Your task to perform on an android device: toggle notification dots Image 0: 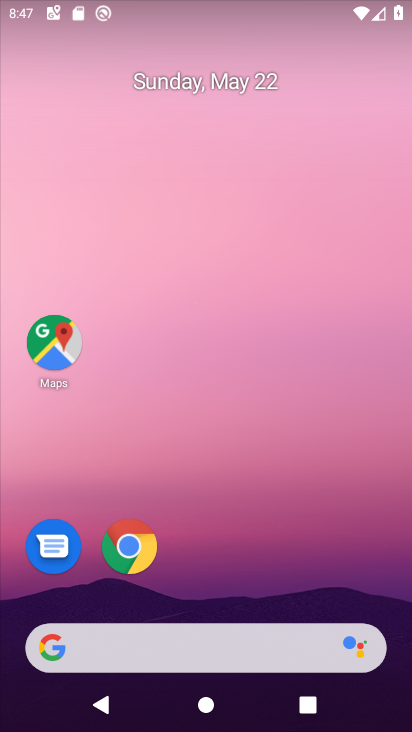
Step 0: drag from (347, 592) to (354, 199)
Your task to perform on an android device: toggle notification dots Image 1: 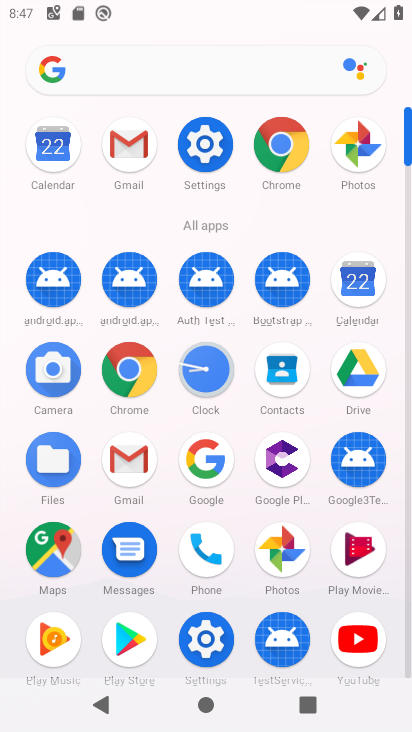
Step 1: click (204, 154)
Your task to perform on an android device: toggle notification dots Image 2: 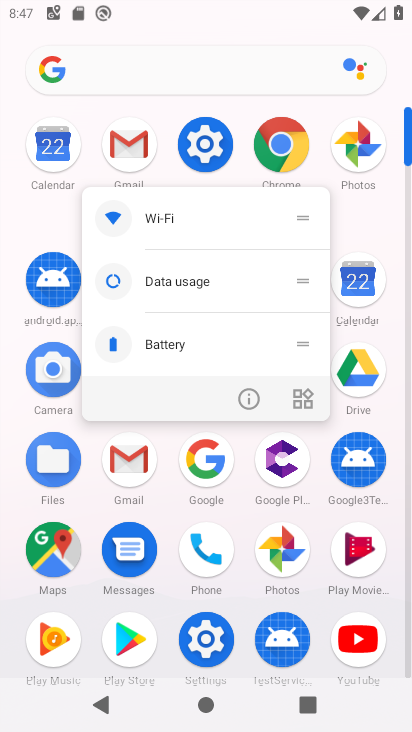
Step 2: click (204, 154)
Your task to perform on an android device: toggle notification dots Image 3: 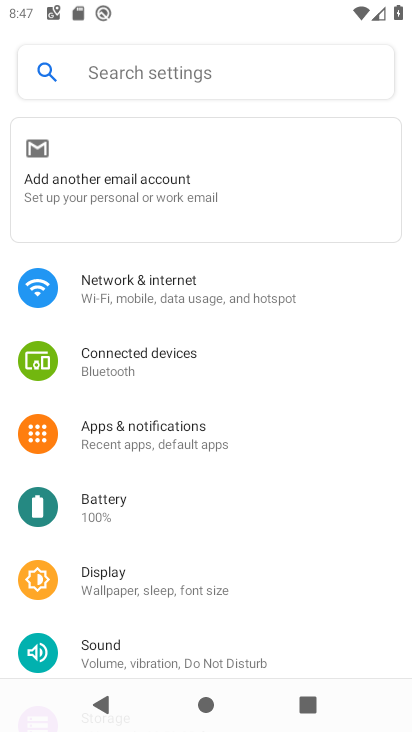
Step 3: drag from (350, 533) to (351, 432)
Your task to perform on an android device: toggle notification dots Image 4: 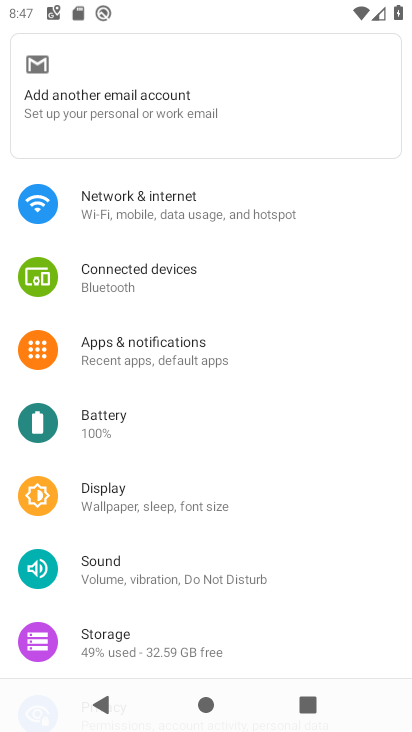
Step 4: drag from (351, 580) to (345, 504)
Your task to perform on an android device: toggle notification dots Image 5: 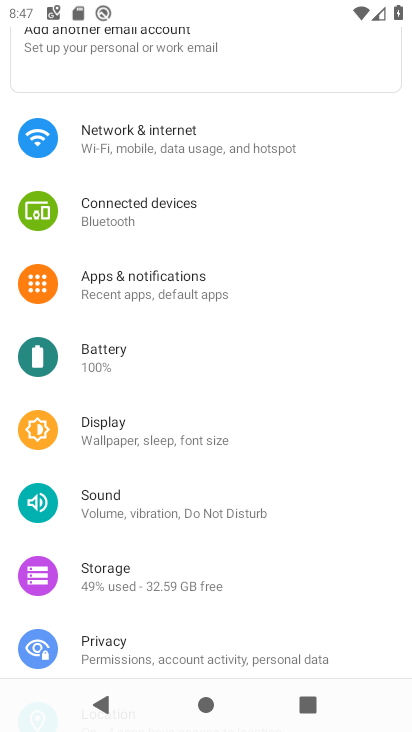
Step 5: drag from (352, 568) to (351, 501)
Your task to perform on an android device: toggle notification dots Image 6: 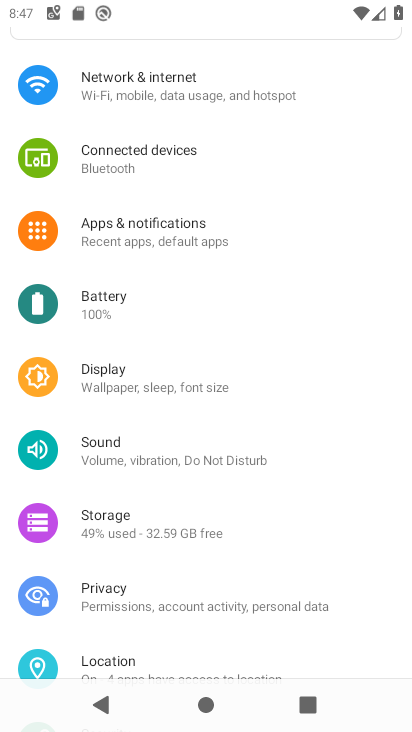
Step 6: drag from (366, 595) to (366, 492)
Your task to perform on an android device: toggle notification dots Image 7: 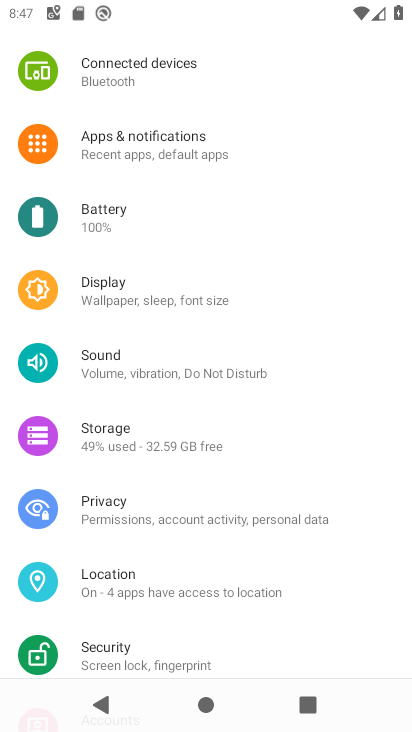
Step 7: drag from (362, 584) to (352, 503)
Your task to perform on an android device: toggle notification dots Image 8: 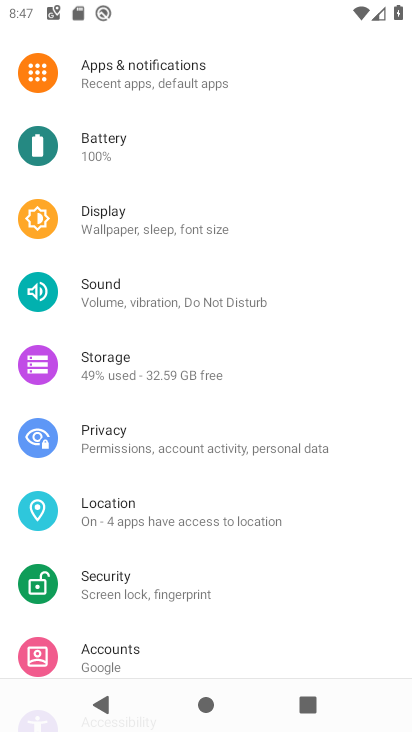
Step 8: drag from (355, 577) to (357, 500)
Your task to perform on an android device: toggle notification dots Image 9: 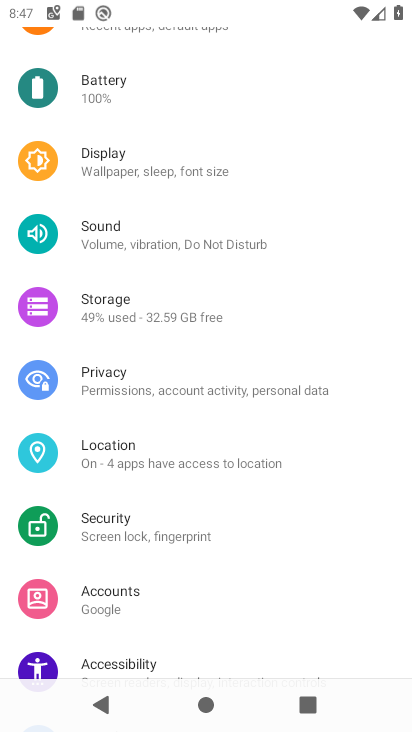
Step 9: drag from (361, 571) to (362, 511)
Your task to perform on an android device: toggle notification dots Image 10: 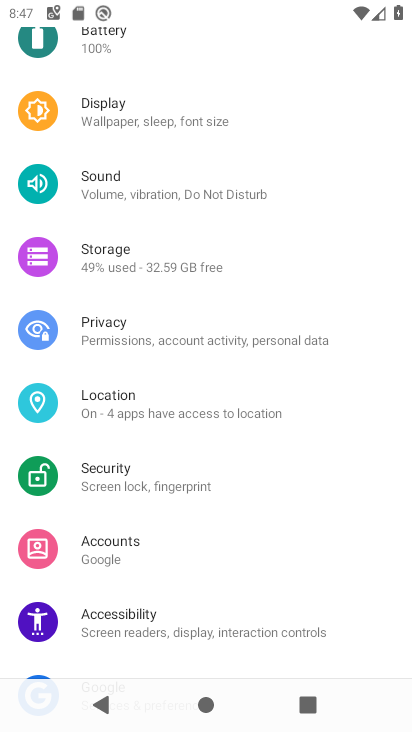
Step 10: drag from (351, 567) to (353, 500)
Your task to perform on an android device: toggle notification dots Image 11: 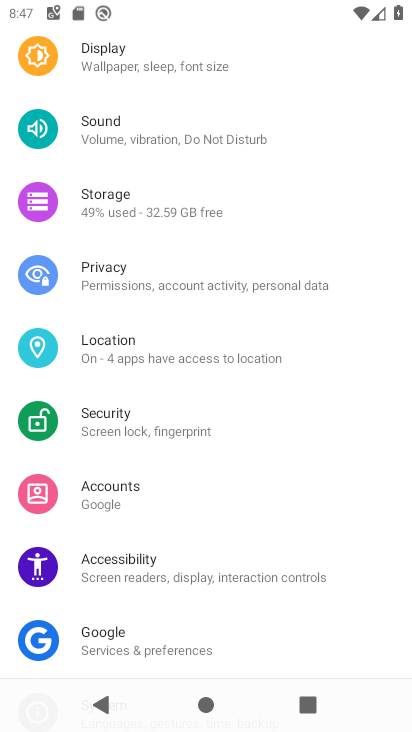
Step 11: drag from (350, 584) to (353, 423)
Your task to perform on an android device: toggle notification dots Image 12: 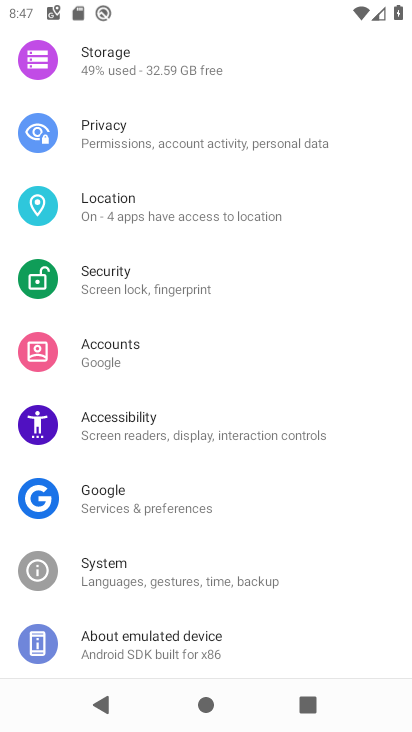
Step 12: drag from (364, 560) to (367, 444)
Your task to perform on an android device: toggle notification dots Image 13: 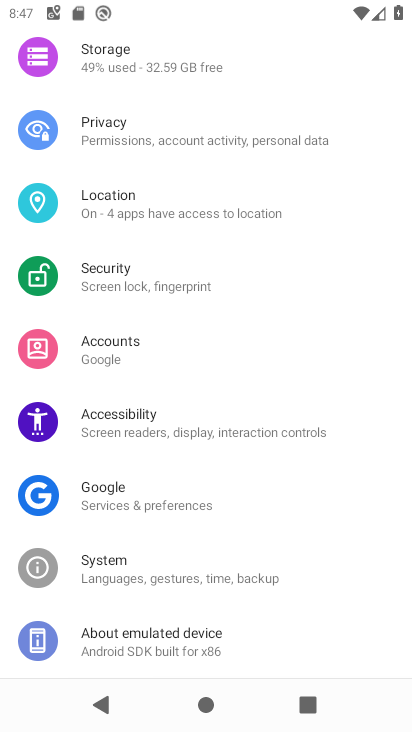
Step 13: drag from (367, 377) to (376, 467)
Your task to perform on an android device: toggle notification dots Image 14: 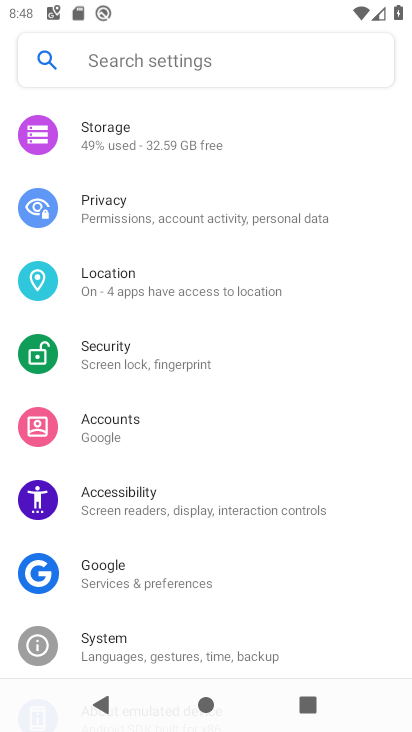
Step 14: drag from (365, 359) to (376, 421)
Your task to perform on an android device: toggle notification dots Image 15: 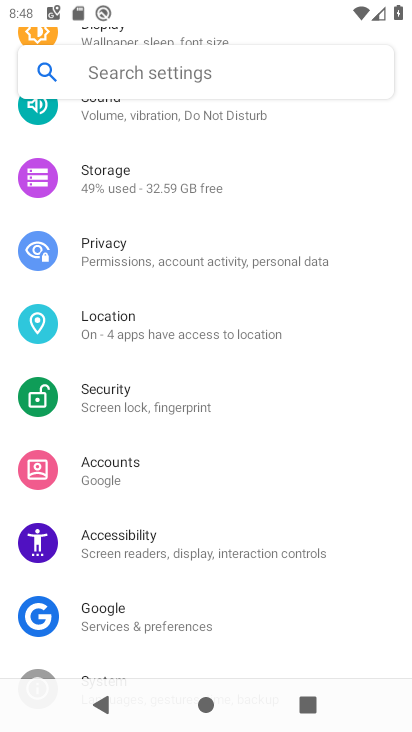
Step 15: drag from (367, 309) to (373, 450)
Your task to perform on an android device: toggle notification dots Image 16: 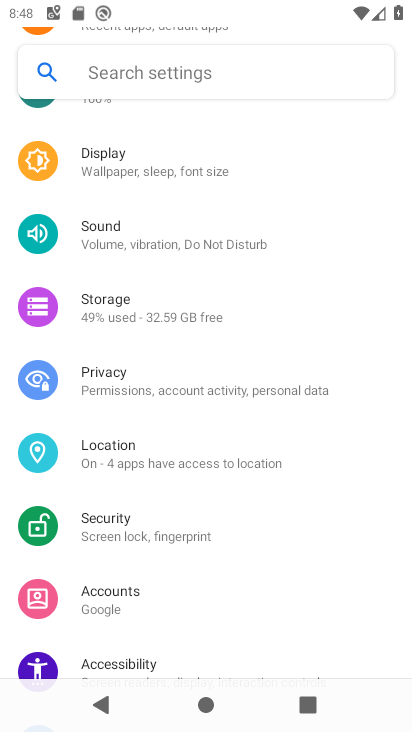
Step 16: drag from (356, 353) to (357, 461)
Your task to perform on an android device: toggle notification dots Image 17: 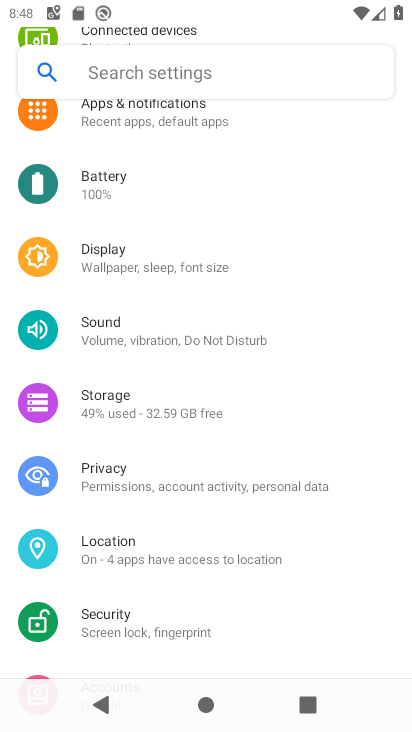
Step 17: drag from (348, 373) to (358, 447)
Your task to perform on an android device: toggle notification dots Image 18: 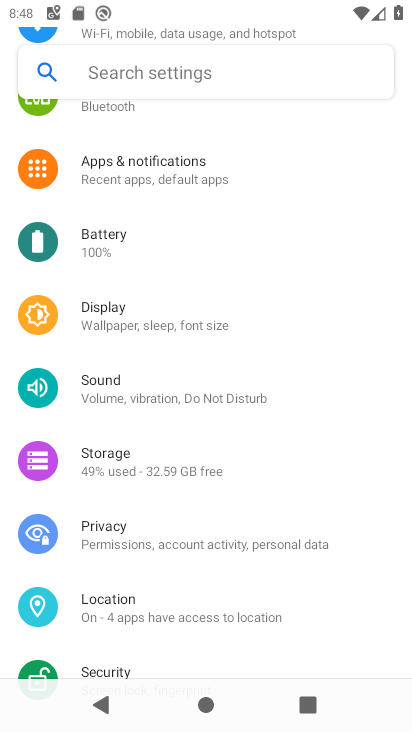
Step 18: drag from (347, 349) to (357, 472)
Your task to perform on an android device: toggle notification dots Image 19: 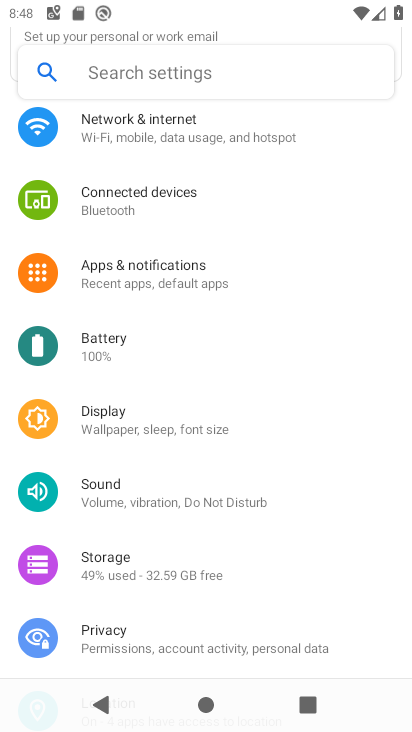
Step 19: drag from (343, 342) to (353, 421)
Your task to perform on an android device: toggle notification dots Image 20: 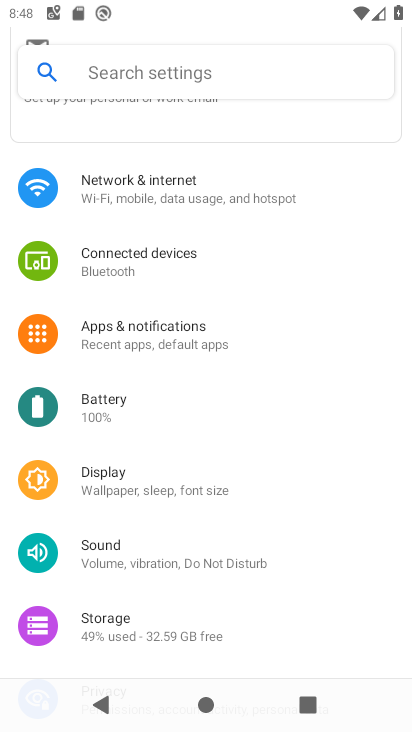
Step 20: drag from (353, 329) to (355, 416)
Your task to perform on an android device: toggle notification dots Image 21: 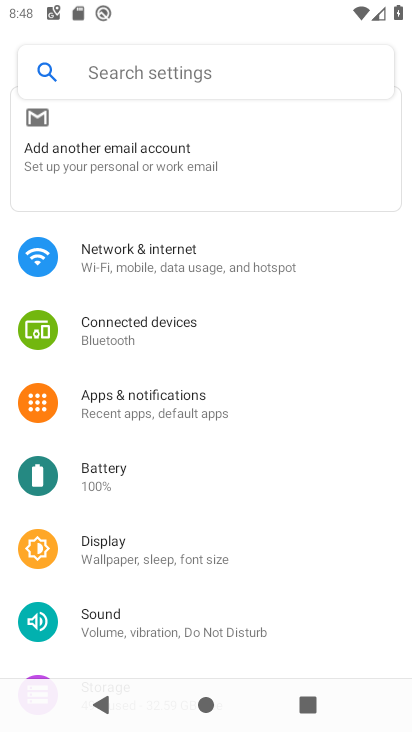
Step 21: drag from (355, 283) to (353, 411)
Your task to perform on an android device: toggle notification dots Image 22: 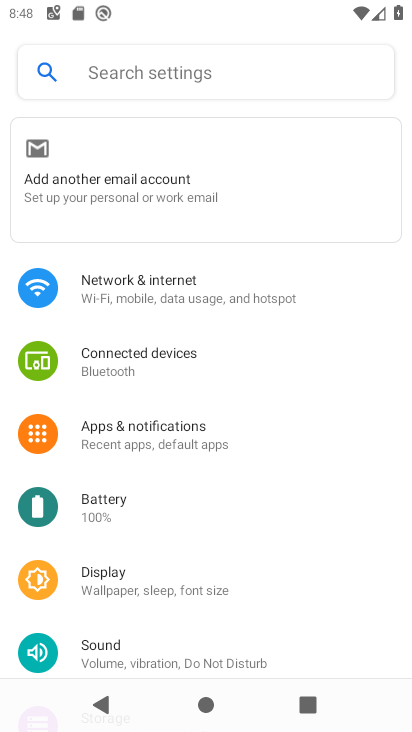
Step 22: click (239, 435)
Your task to perform on an android device: toggle notification dots Image 23: 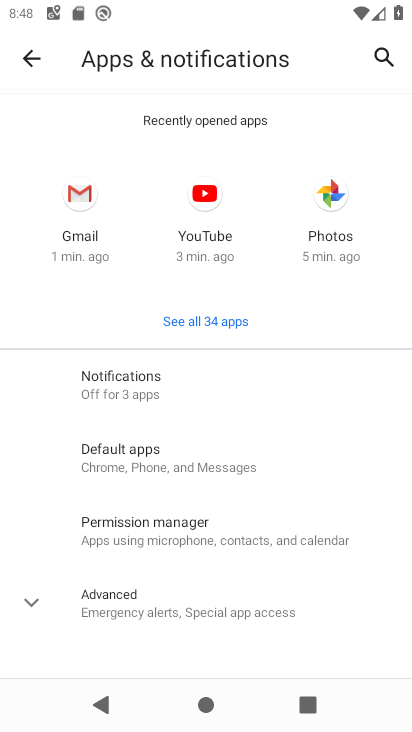
Step 23: click (171, 387)
Your task to perform on an android device: toggle notification dots Image 24: 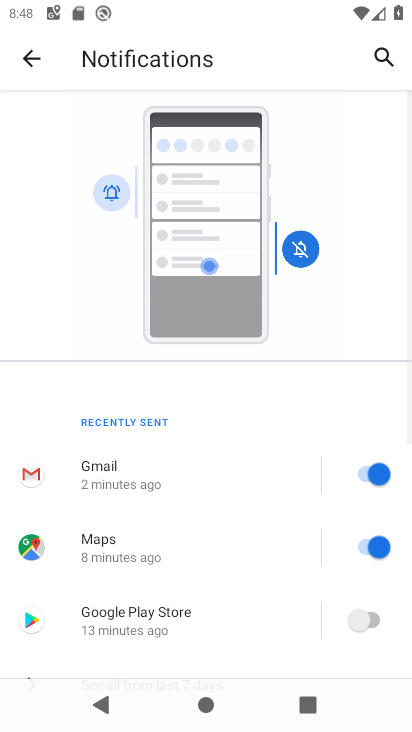
Step 24: drag from (237, 553) to (235, 434)
Your task to perform on an android device: toggle notification dots Image 25: 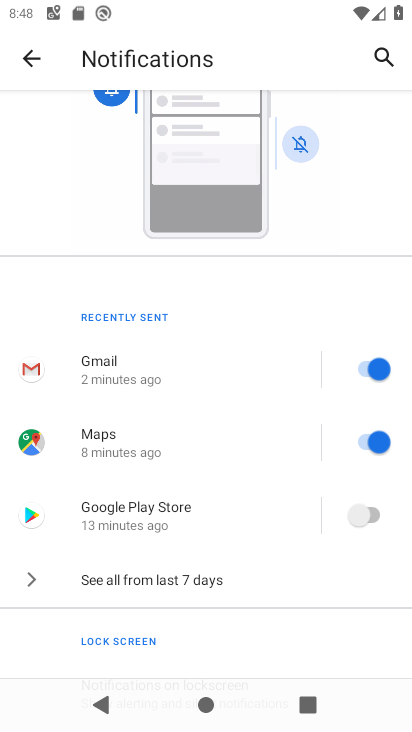
Step 25: drag from (235, 569) to (241, 444)
Your task to perform on an android device: toggle notification dots Image 26: 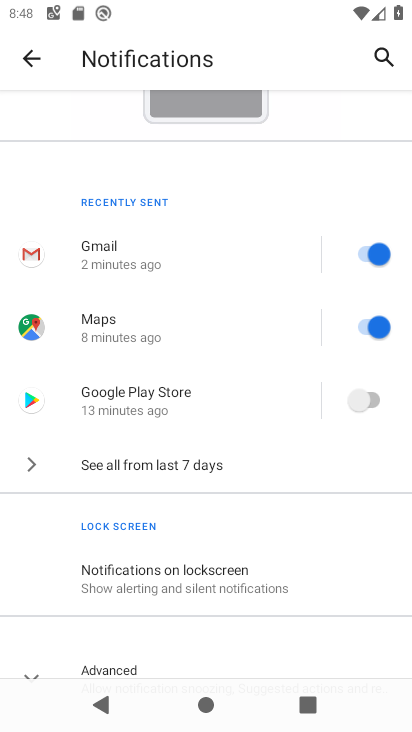
Step 26: drag from (271, 560) to (281, 454)
Your task to perform on an android device: toggle notification dots Image 27: 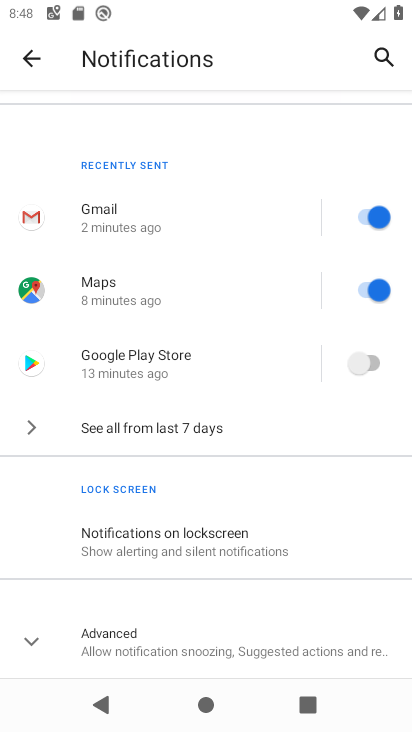
Step 27: drag from (283, 555) to (283, 454)
Your task to perform on an android device: toggle notification dots Image 28: 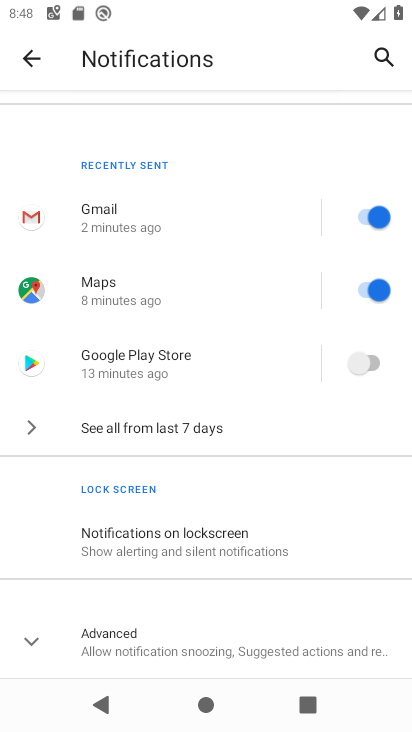
Step 28: click (269, 645)
Your task to perform on an android device: toggle notification dots Image 29: 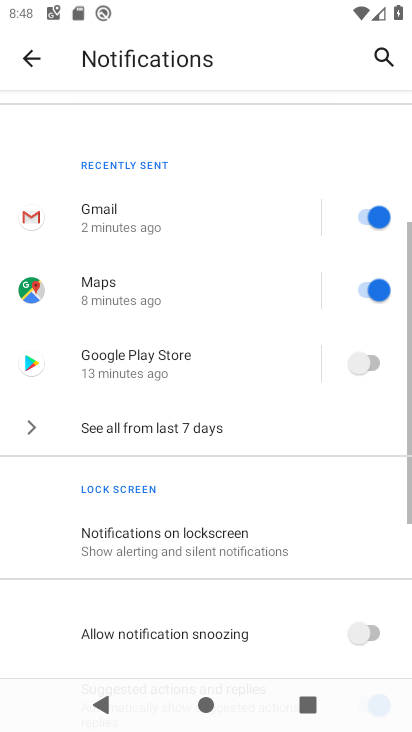
Step 29: drag from (276, 597) to (276, 381)
Your task to perform on an android device: toggle notification dots Image 30: 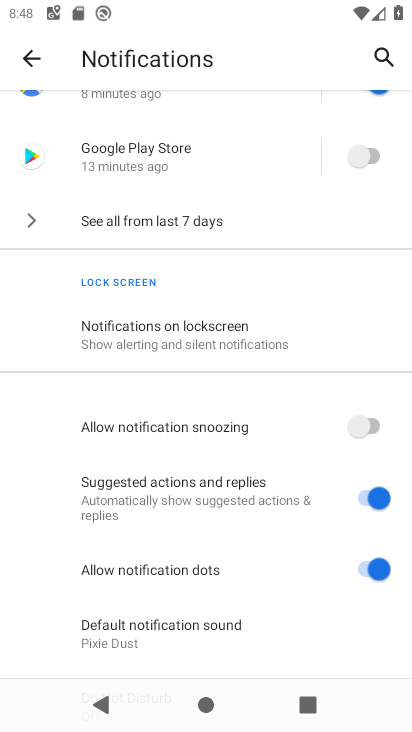
Step 30: click (358, 568)
Your task to perform on an android device: toggle notification dots Image 31: 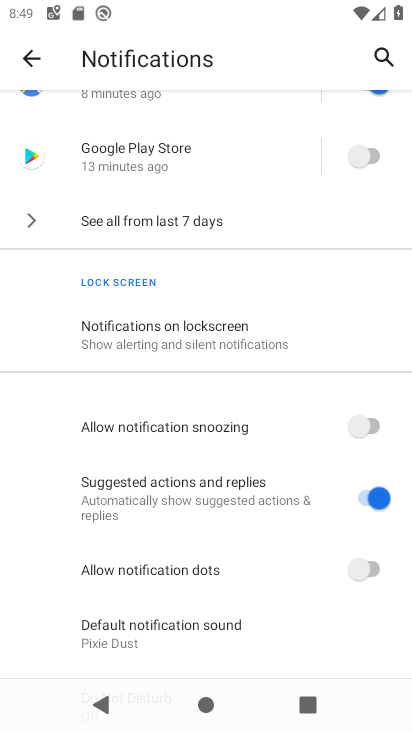
Step 31: task complete